Your task to perform on an android device: open the mobile data screen to see how much data has been used Image 0: 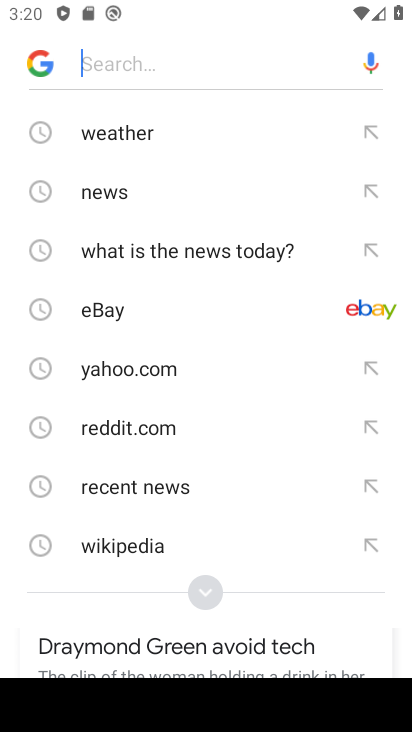
Step 0: press home button
Your task to perform on an android device: open the mobile data screen to see how much data has been used Image 1: 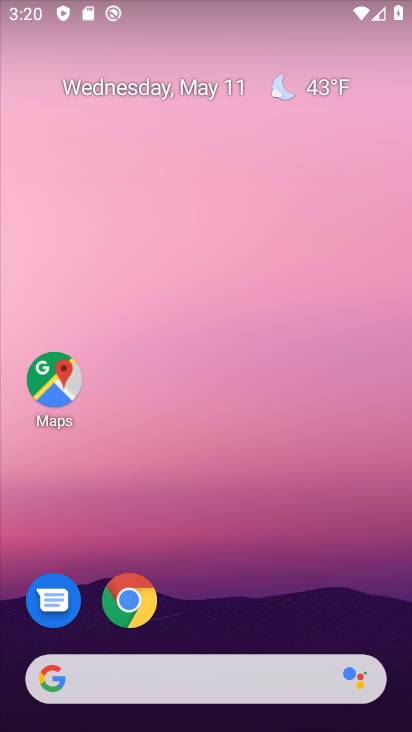
Step 1: drag from (375, 589) to (386, 37)
Your task to perform on an android device: open the mobile data screen to see how much data has been used Image 2: 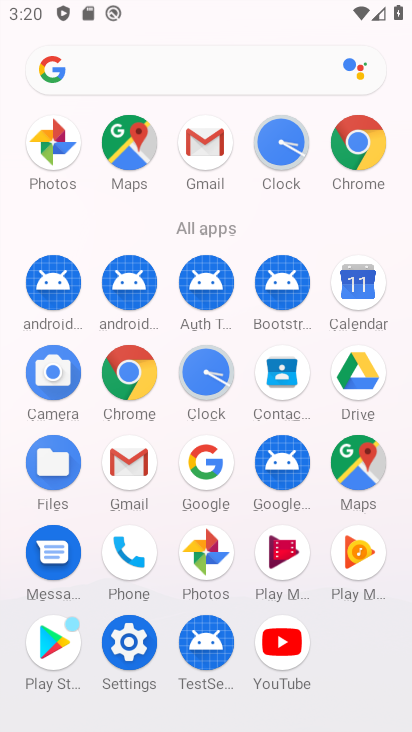
Step 2: click (131, 652)
Your task to perform on an android device: open the mobile data screen to see how much data has been used Image 3: 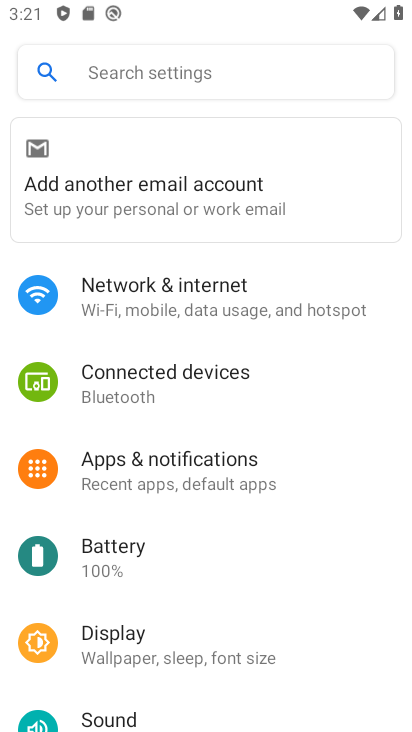
Step 3: click (142, 312)
Your task to perform on an android device: open the mobile data screen to see how much data has been used Image 4: 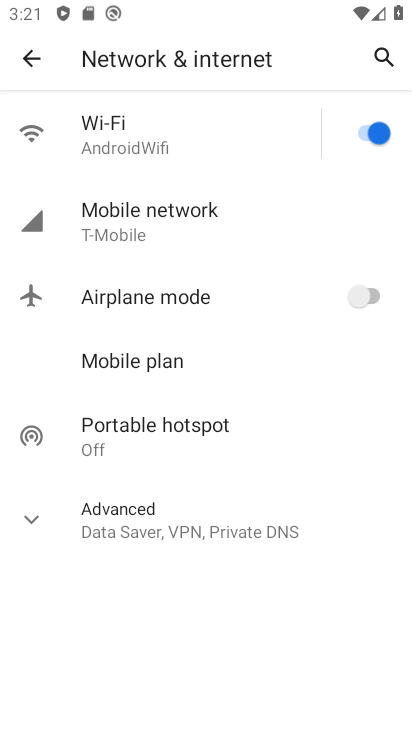
Step 4: click (117, 239)
Your task to perform on an android device: open the mobile data screen to see how much data has been used Image 5: 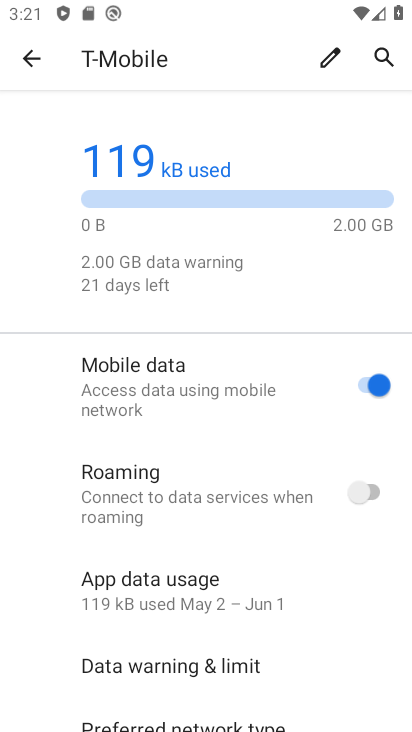
Step 5: click (171, 605)
Your task to perform on an android device: open the mobile data screen to see how much data has been used Image 6: 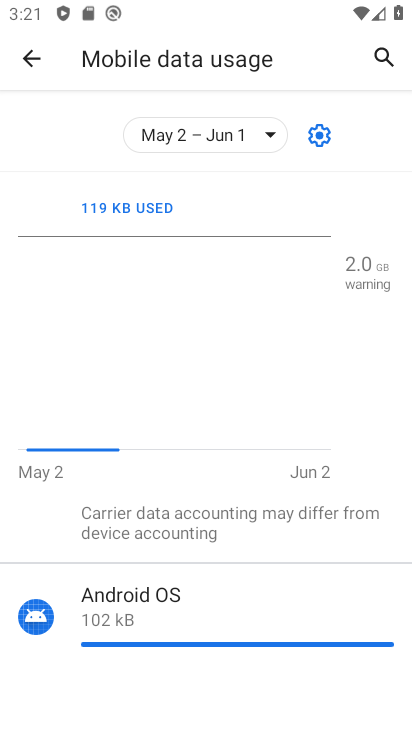
Step 6: task complete